Your task to perform on an android device: change the clock display to analog Image 0: 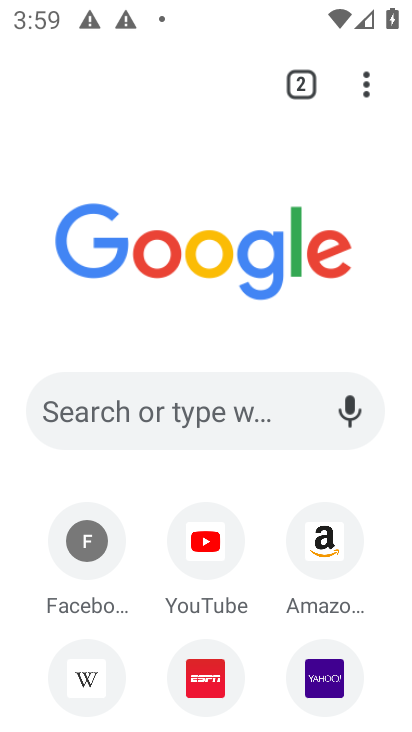
Step 0: press home button
Your task to perform on an android device: change the clock display to analog Image 1: 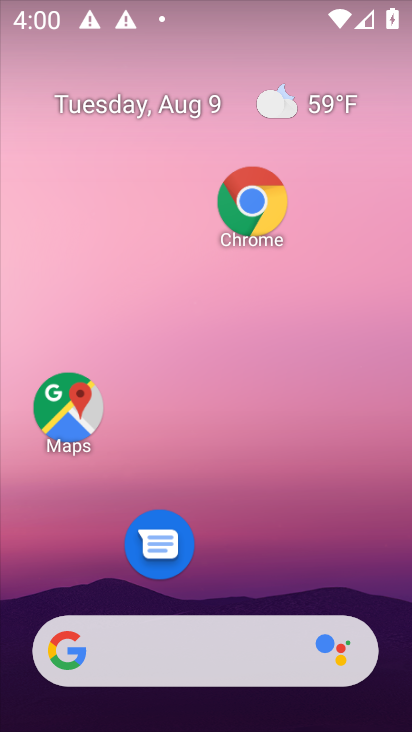
Step 1: drag from (161, 613) to (262, 307)
Your task to perform on an android device: change the clock display to analog Image 2: 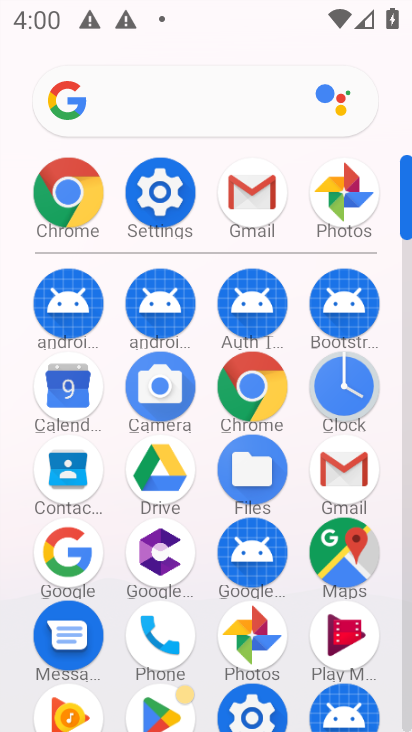
Step 2: click (330, 395)
Your task to perform on an android device: change the clock display to analog Image 3: 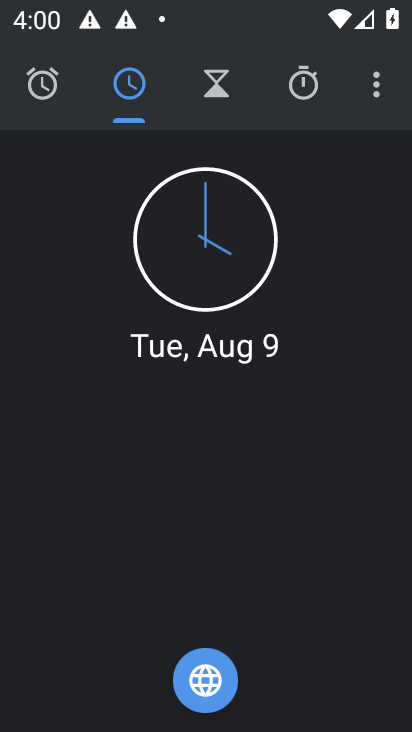
Step 3: click (369, 88)
Your task to perform on an android device: change the clock display to analog Image 4: 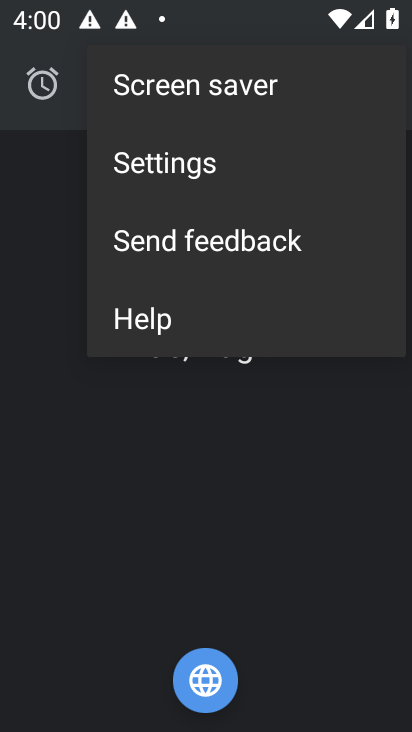
Step 4: click (185, 168)
Your task to perform on an android device: change the clock display to analog Image 5: 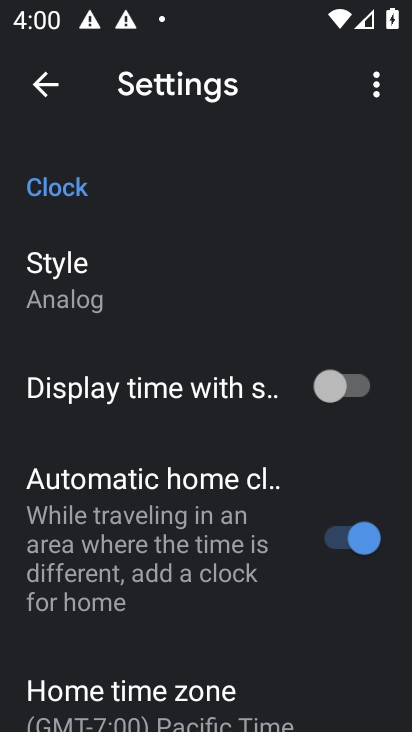
Step 5: task complete